Your task to perform on an android device: set the stopwatch Image 0: 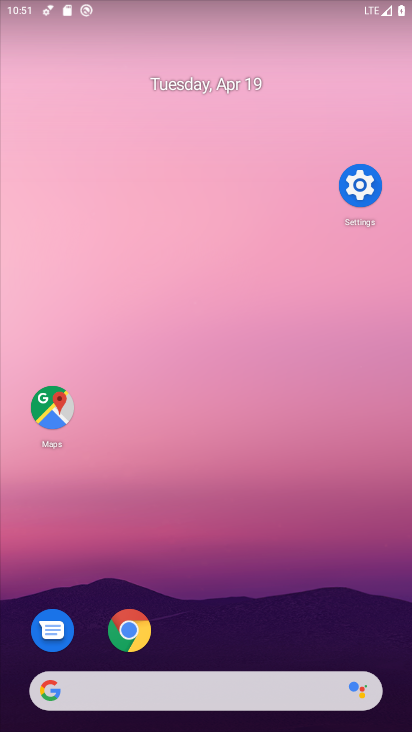
Step 0: drag from (241, 250) to (245, 291)
Your task to perform on an android device: set the stopwatch Image 1: 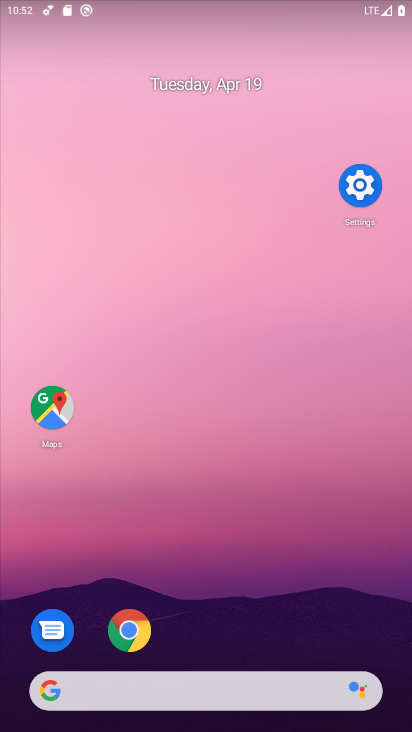
Step 1: click (228, 216)
Your task to perform on an android device: set the stopwatch Image 2: 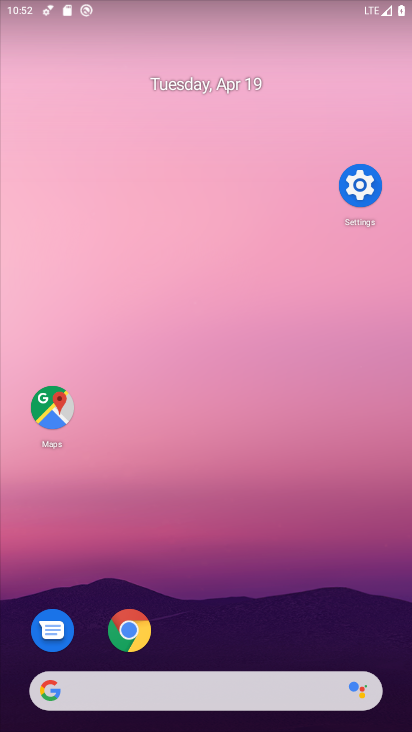
Step 2: drag from (267, 428) to (237, 0)
Your task to perform on an android device: set the stopwatch Image 3: 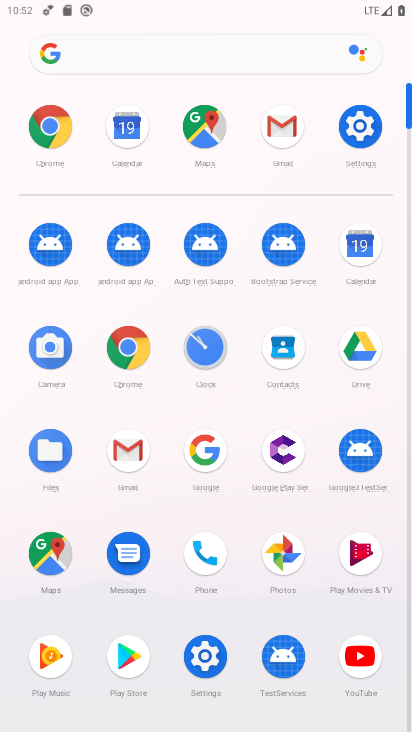
Step 3: click (207, 348)
Your task to perform on an android device: set the stopwatch Image 4: 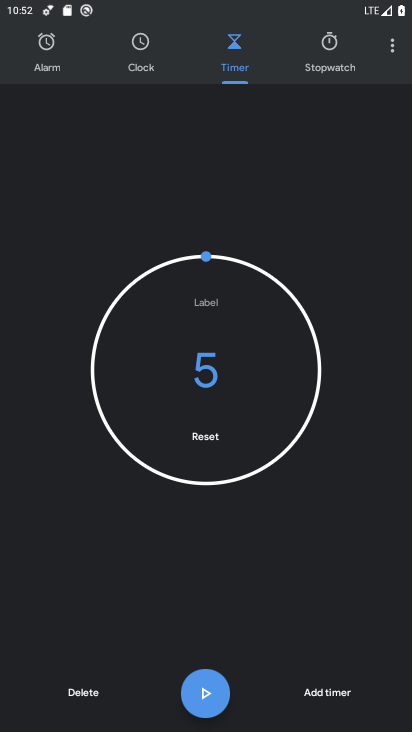
Step 4: click (341, 57)
Your task to perform on an android device: set the stopwatch Image 5: 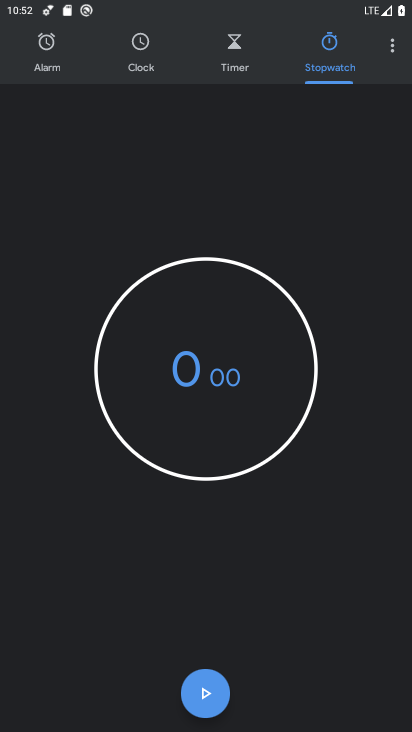
Step 5: click (202, 705)
Your task to perform on an android device: set the stopwatch Image 6: 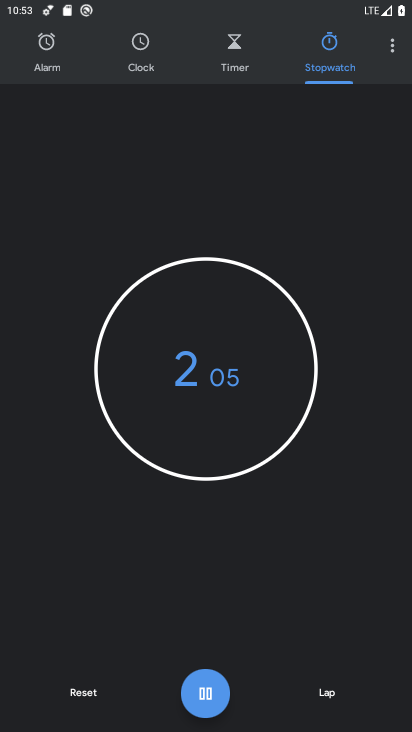
Step 6: task complete